Your task to perform on an android device: install app "Instagram" Image 0: 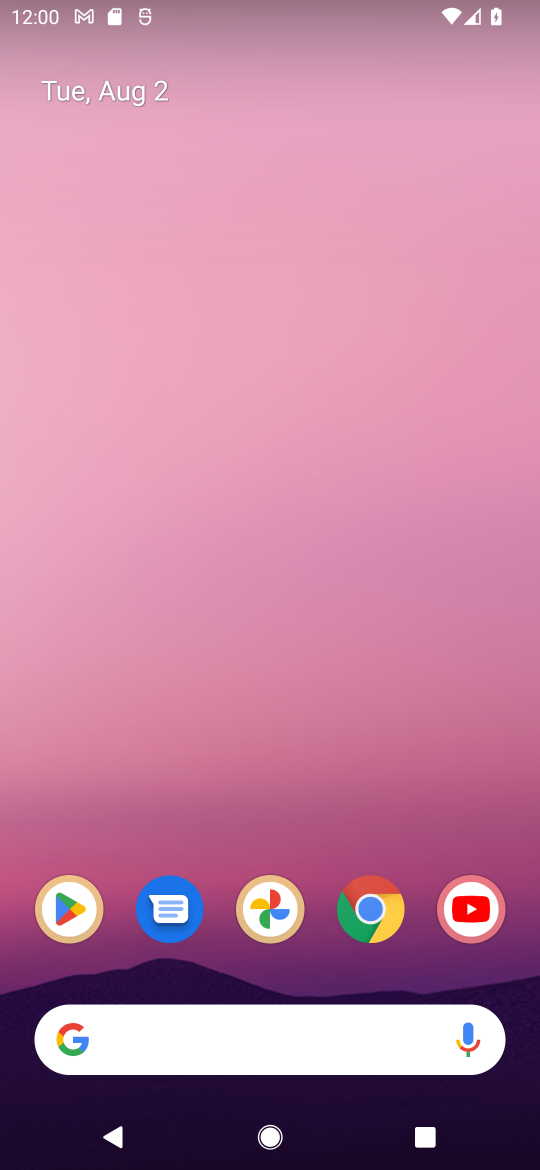
Step 0: press home button
Your task to perform on an android device: install app "Instagram" Image 1: 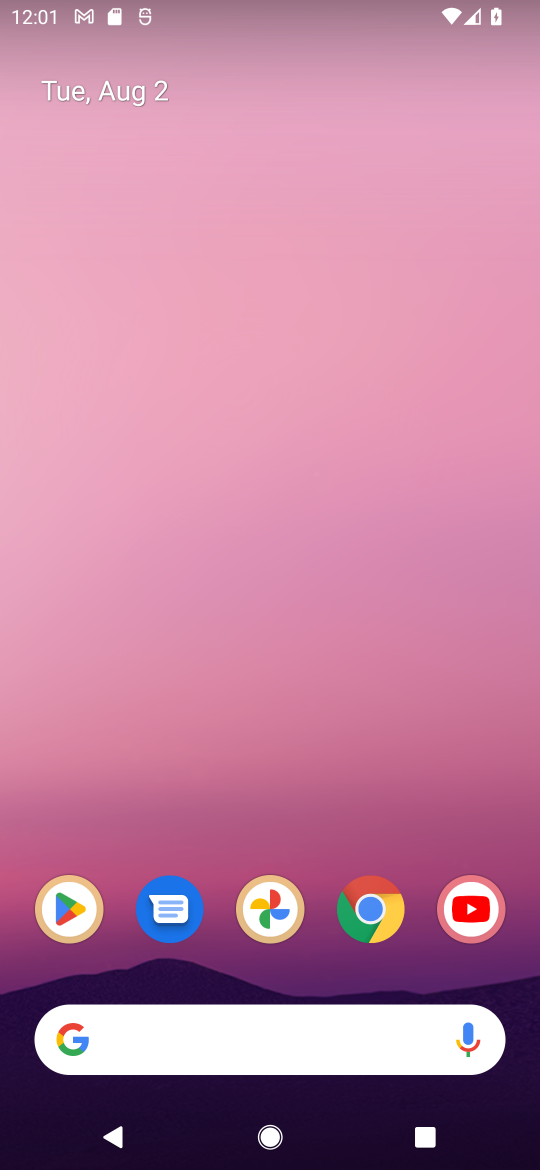
Step 1: click (73, 912)
Your task to perform on an android device: install app "Instagram" Image 2: 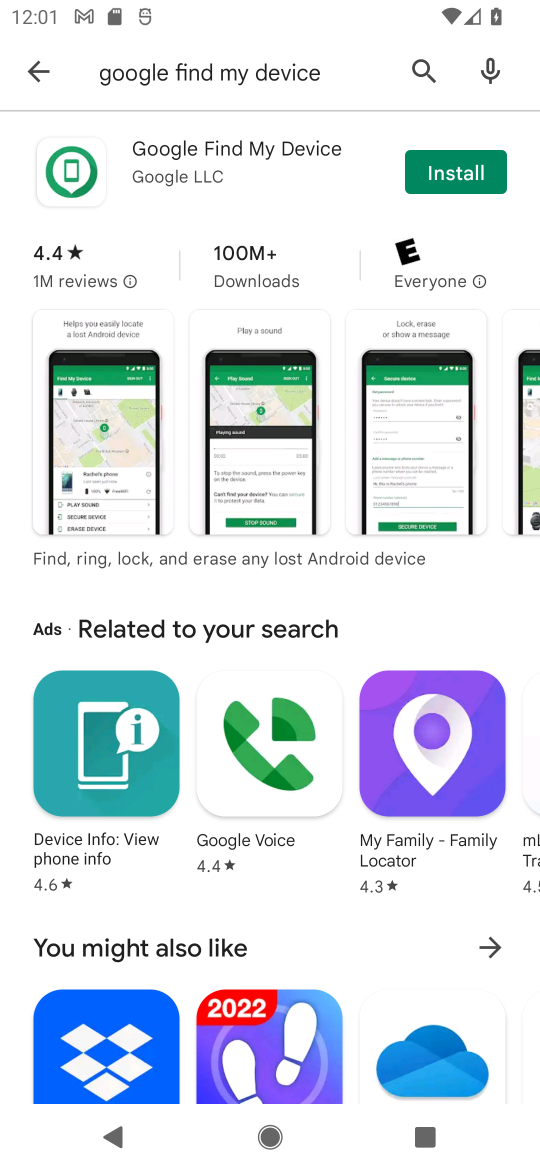
Step 2: click (416, 62)
Your task to perform on an android device: install app "Instagram" Image 3: 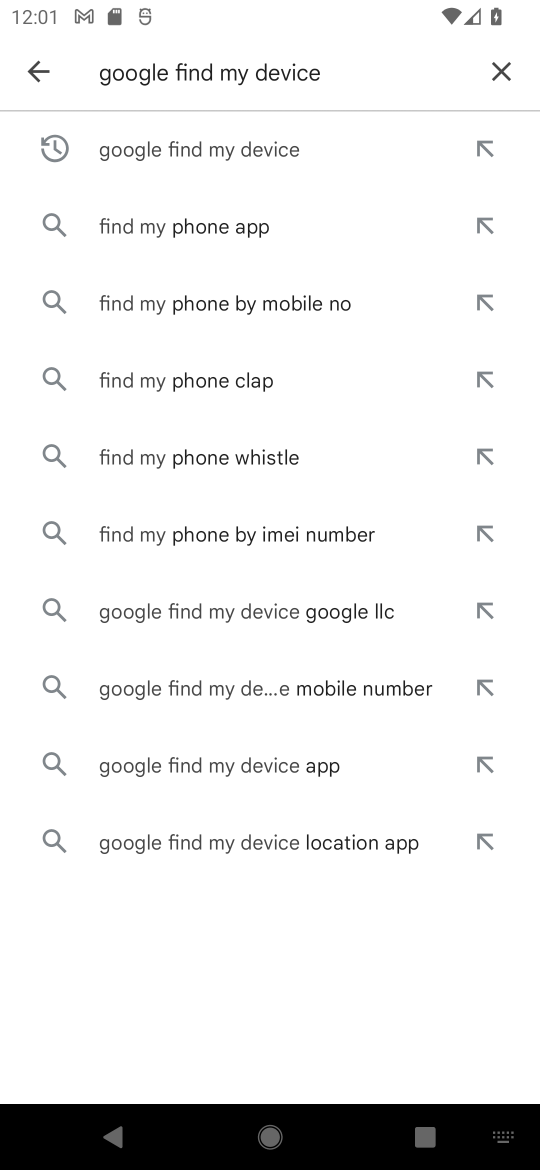
Step 3: click (498, 62)
Your task to perform on an android device: install app "Instagram" Image 4: 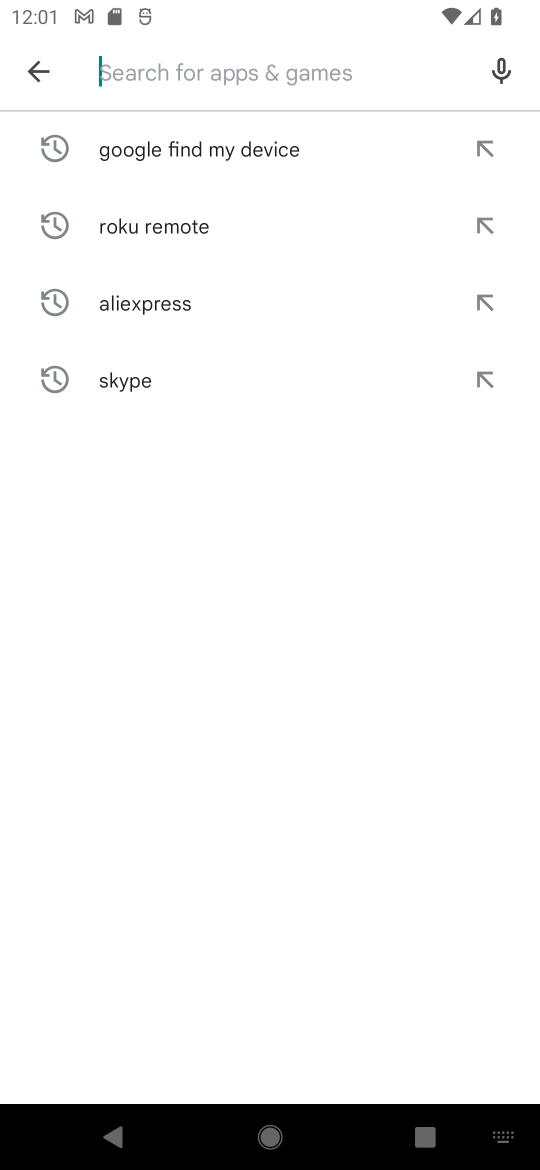
Step 4: type "Instagram"
Your task to perform on an android device: install app "Instagram" Image 5: 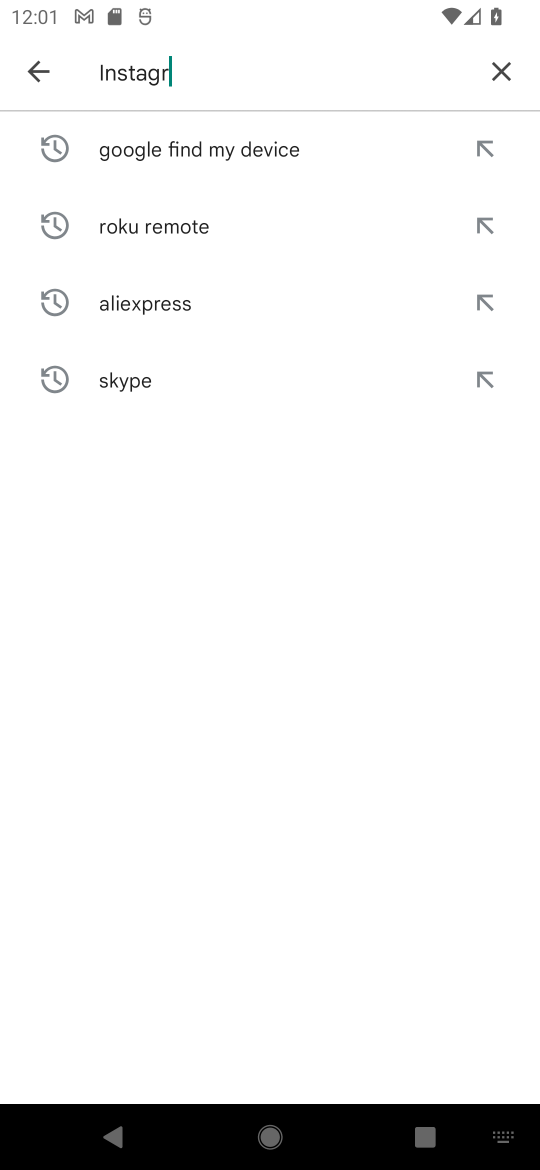
Step 5: type ""
Your task to perform on an android device: install app "Instagram" Image 6: 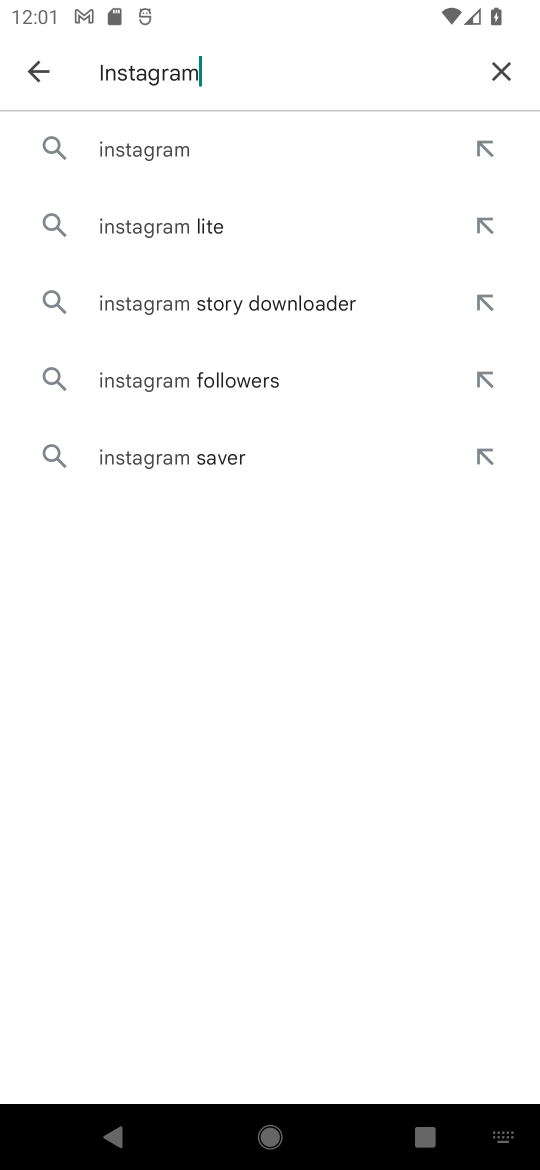
Step 6: click (117, 138)
Your task to perform on an android device: install app "Instagram" Image 7: 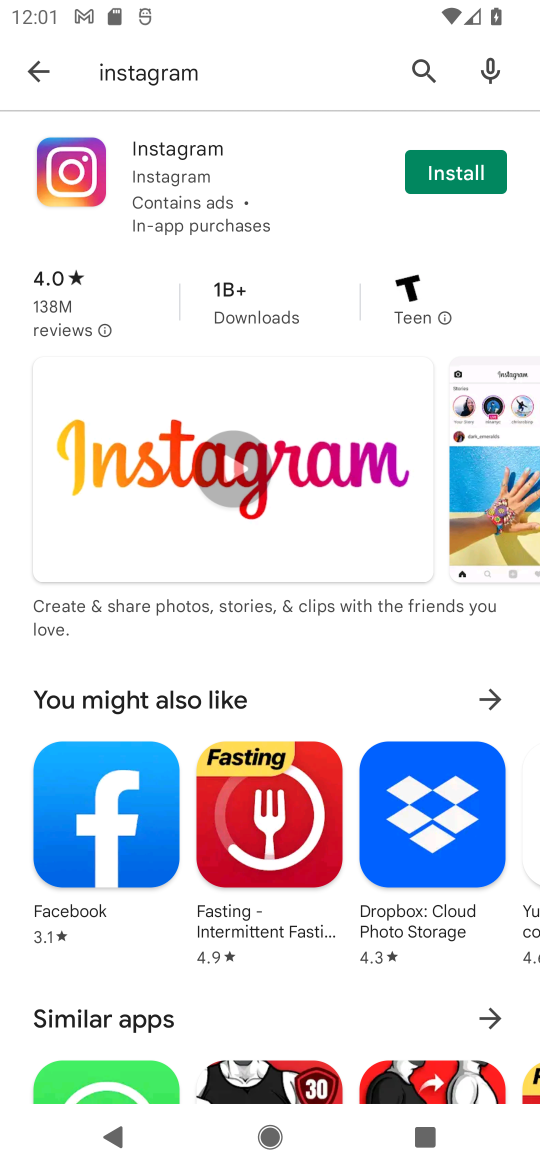
Step 7: click (420, 184)
Your task to perform on an android device: install app "Instagram" Image 8: 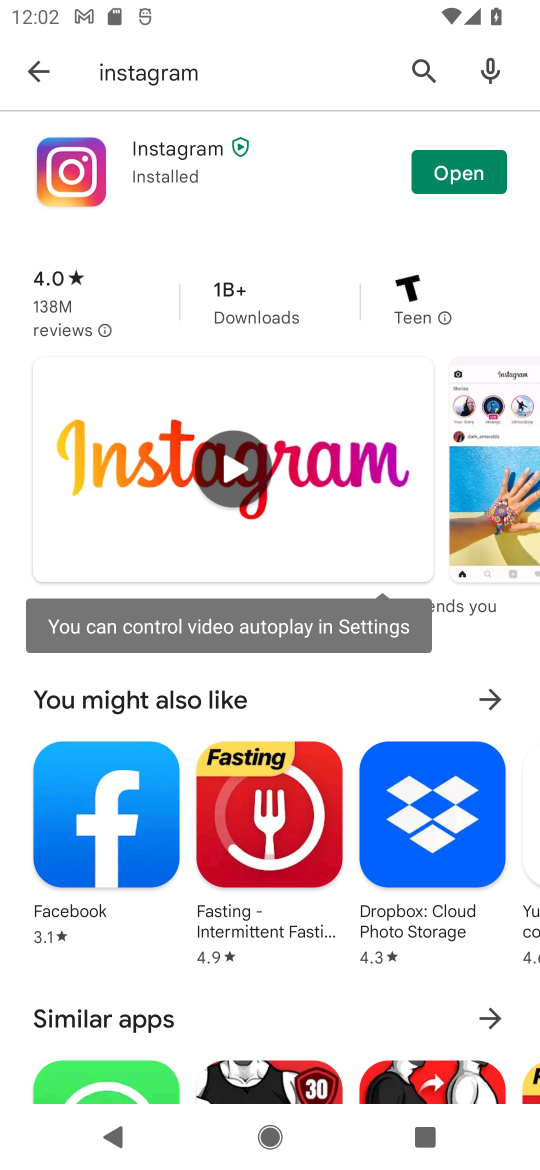
Step 8: task complete